Your task to perform on an android device: toggle airplane mode Image 0: 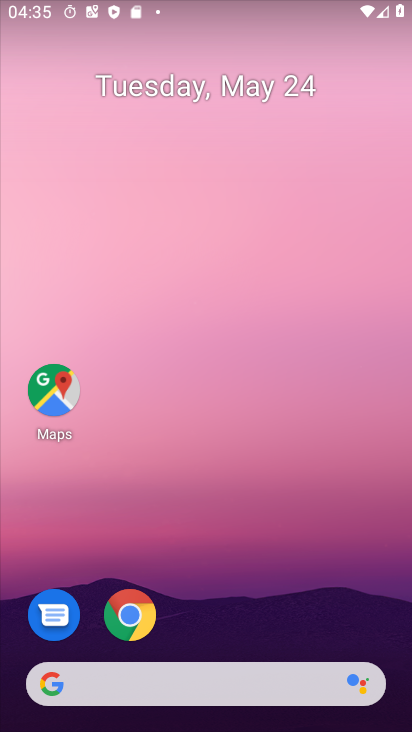
Step 0: drag from (363, 7) to (284, 496)
Your task to perform on an android device: toggle airplane mode Image 1: 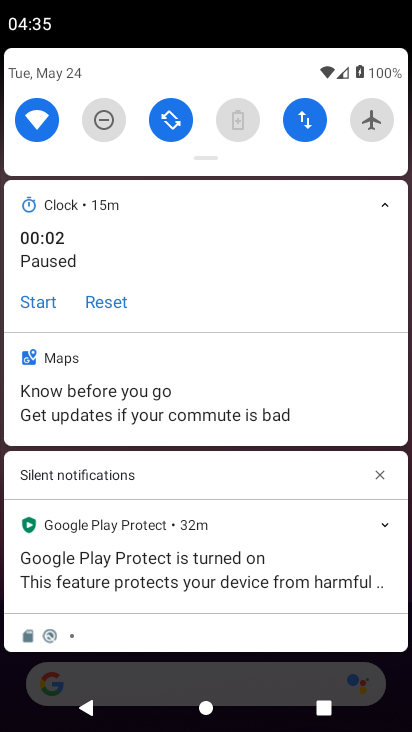
Step 1: click (374, 119)
Your task to perform on an android device: toggle airplane mode Image 2: 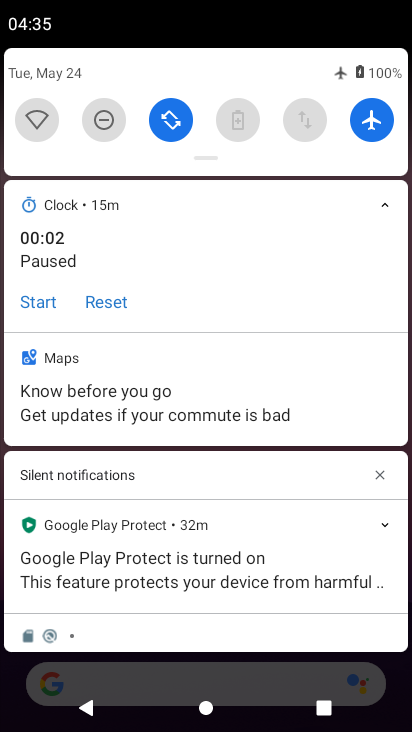
Step 2: task complete